Your task to perform on an android device: toggle airplane mode Image 0: 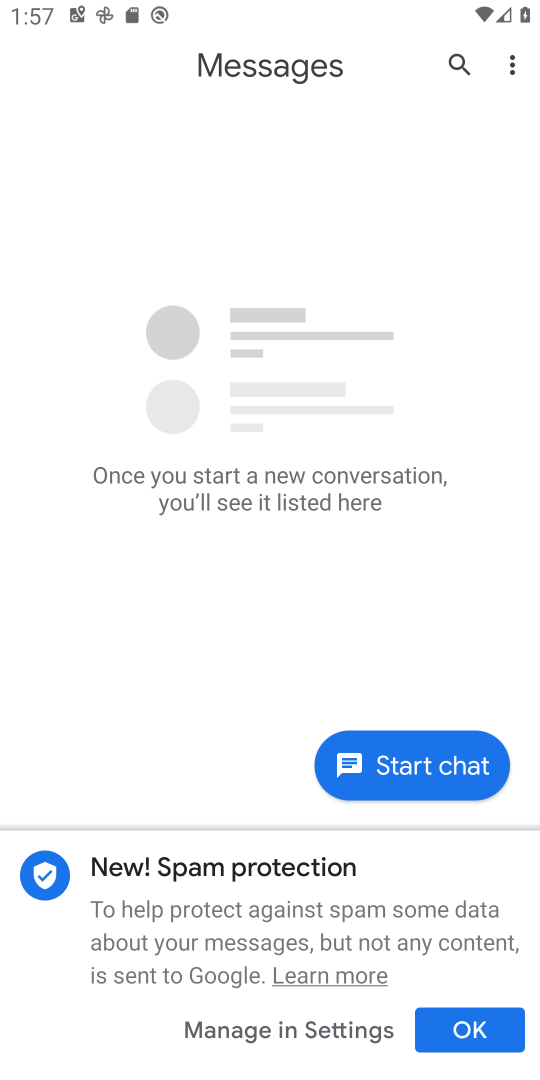
Step 0: press home button
Your task to perform on an android device: toggle airplane mode Image 1: 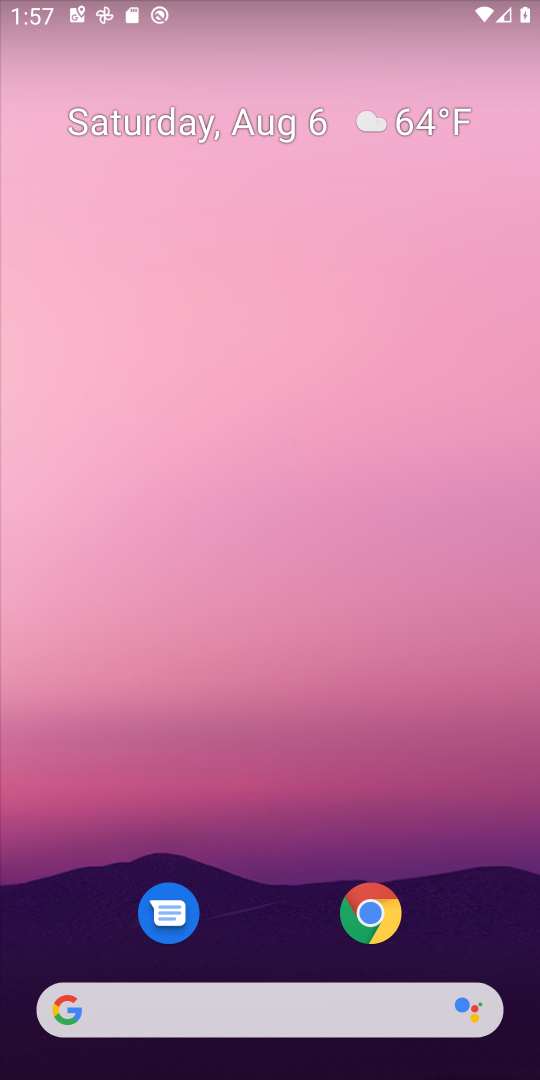
Step 1: drag from (272, 884) to (331, 349)
Your task to perform on an android device: toggle airplane mode Image 2: 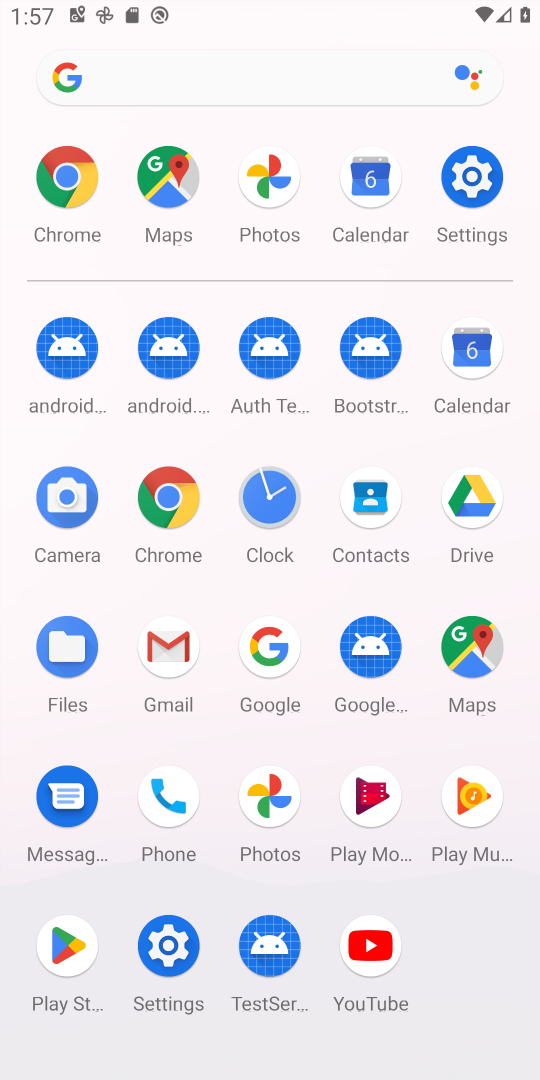
Step 2: click (475, 177)
Your task to perform on an android device: toggle airplane mode Image 3: 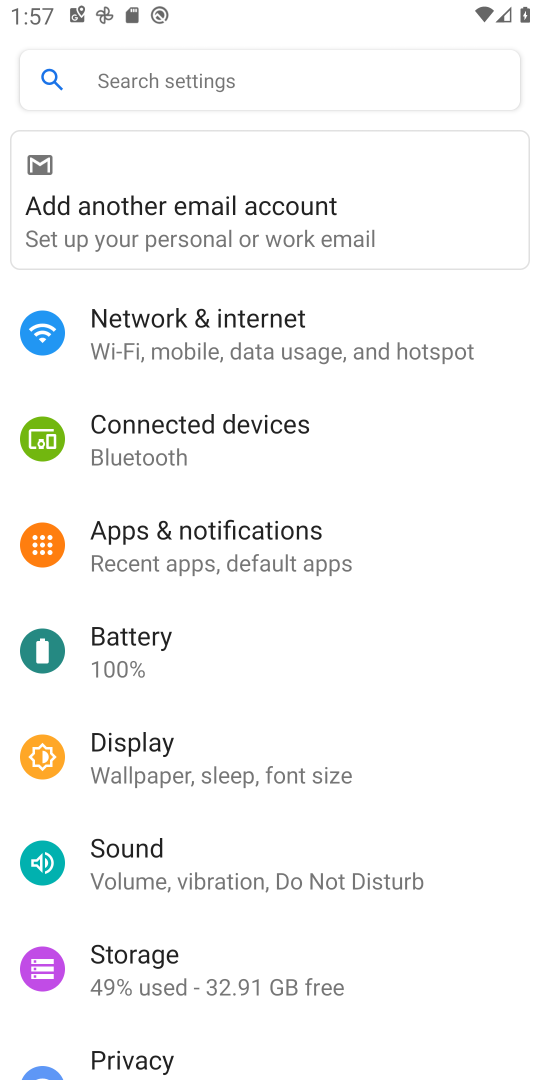
Step 3: drag from (429, 794) to (458, 635)
Your task to perform on an android device: toggle airplane mode Image 4: 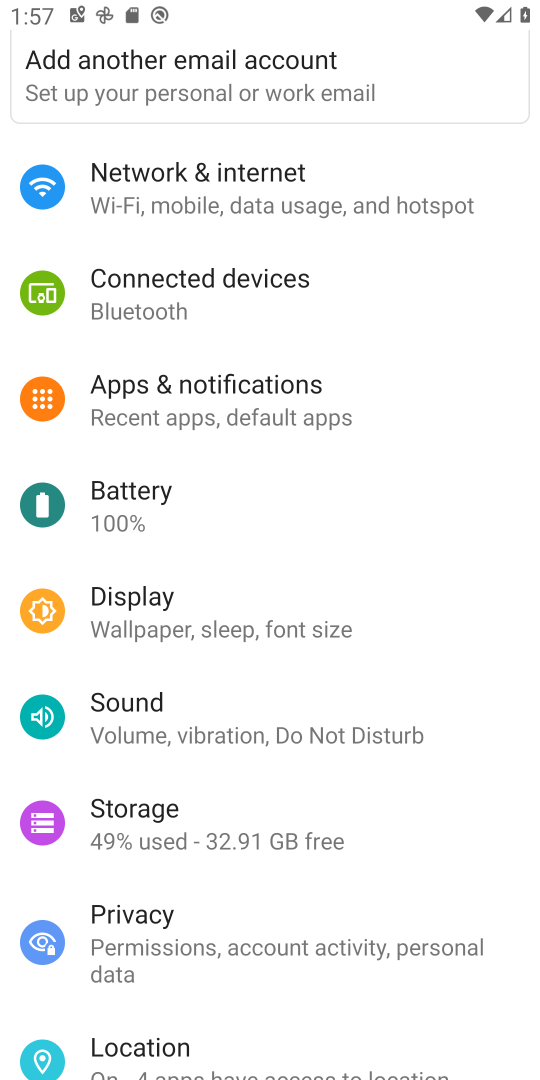
Step 4: drag from (459, 823) to (479, 608)
Your task to perform on an android device: toggle airplane mode Image 5: 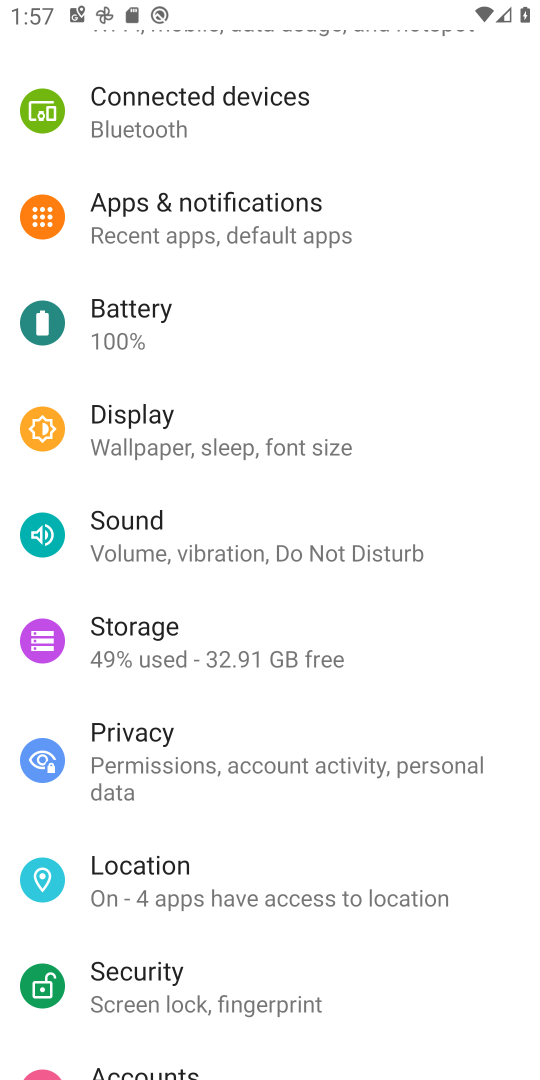
Step 5: drag from (479, 838) to (480, 658)
Your task to perform on an android device: toggle airplane mode Image 6: 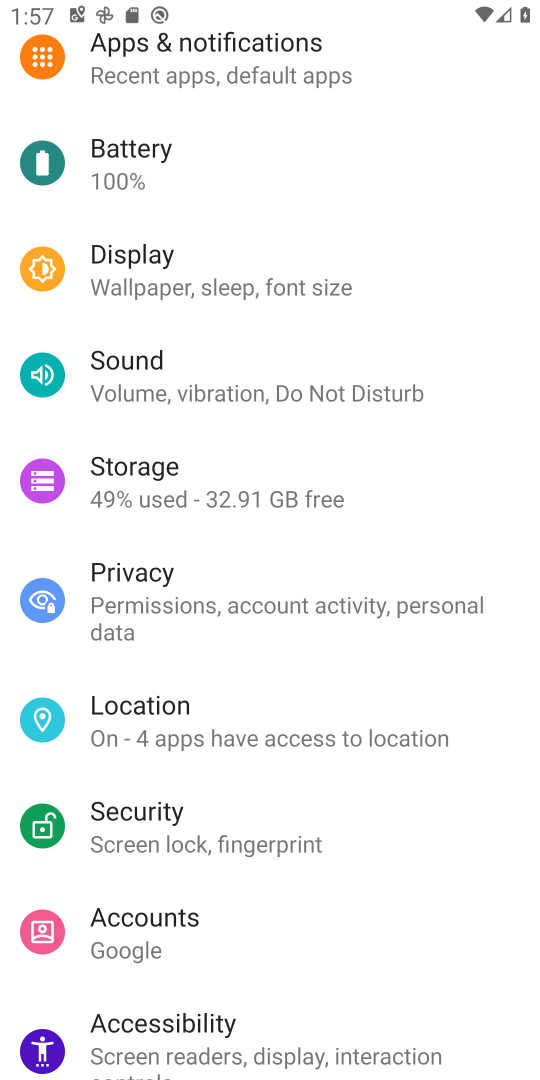
Step 6: drag from (482, 913) to (484, 645)
Your task to perform on an android device: toggle airplane mode Image 7: 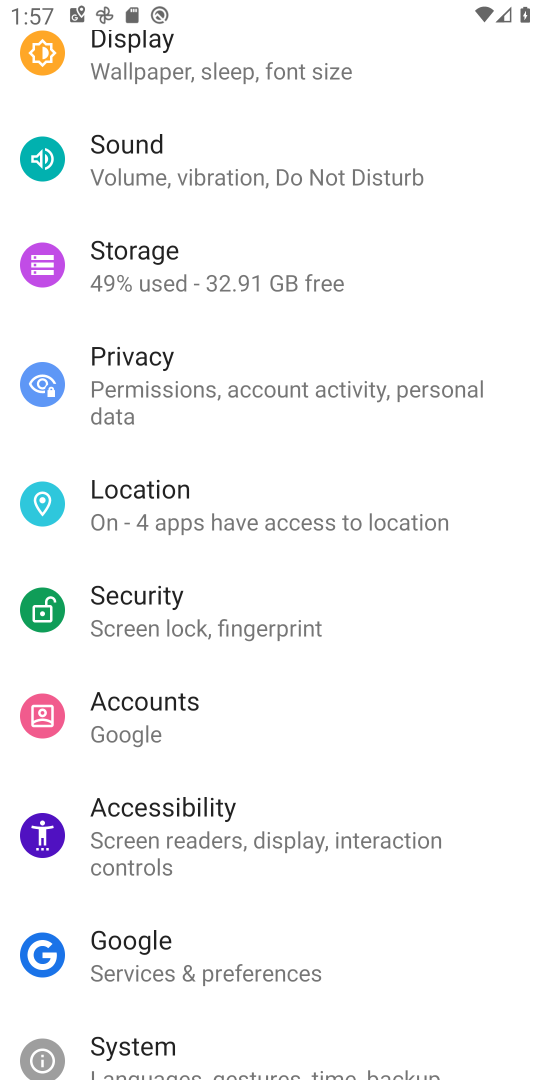
Step 7: drag from (476, 897) to (470, 668)
Your task to perform on an android device: toggle airplane mode Image 8: 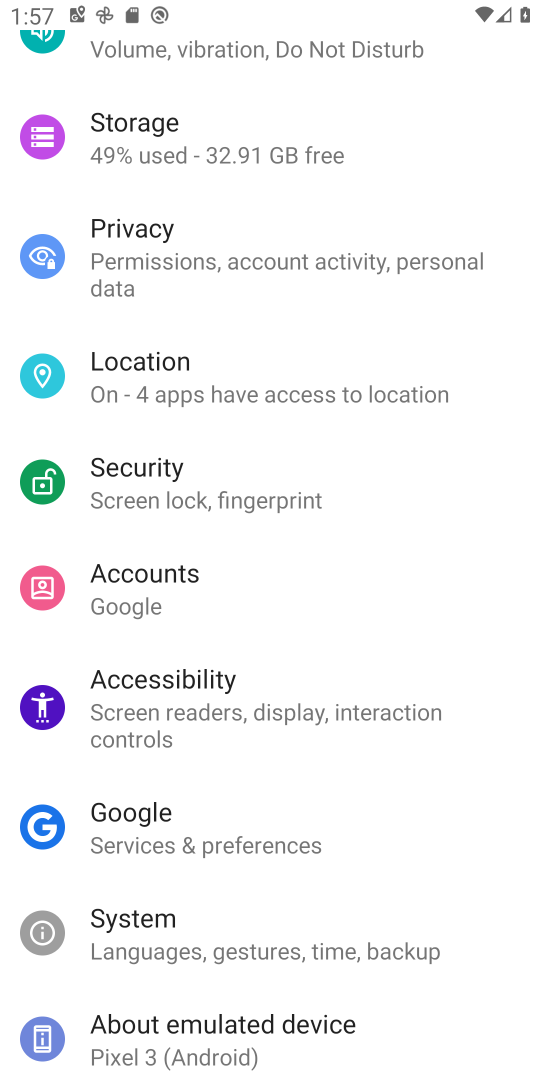
Step 8: drag from (458, 562) to (467, 846)
Your task to perform on an android device: toggle airplane mode Image 9: 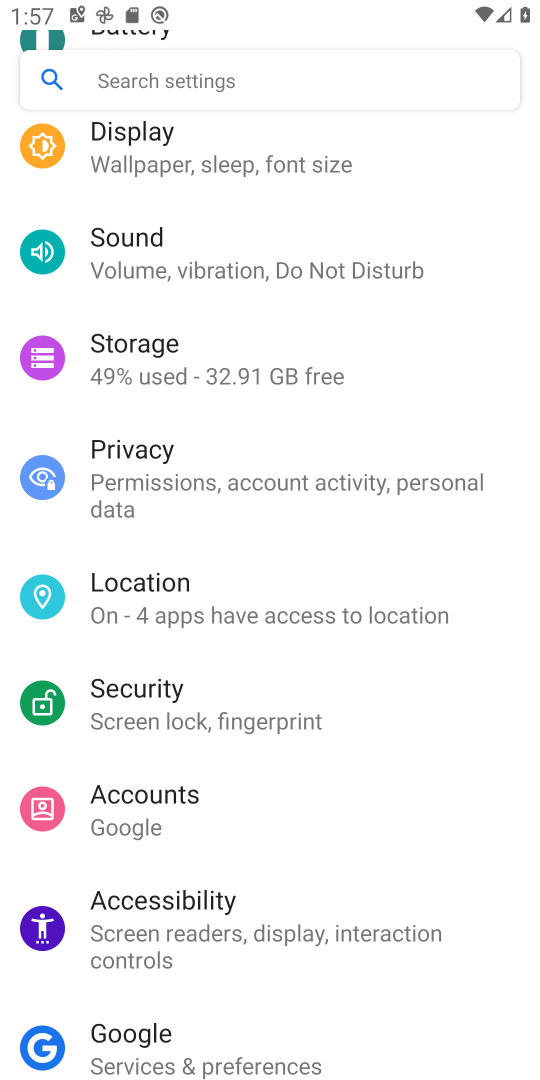
Step 9: drag from (466, 386) to (463, 639)
Your task to perform on an android device: toggle airplane mode Image 10: 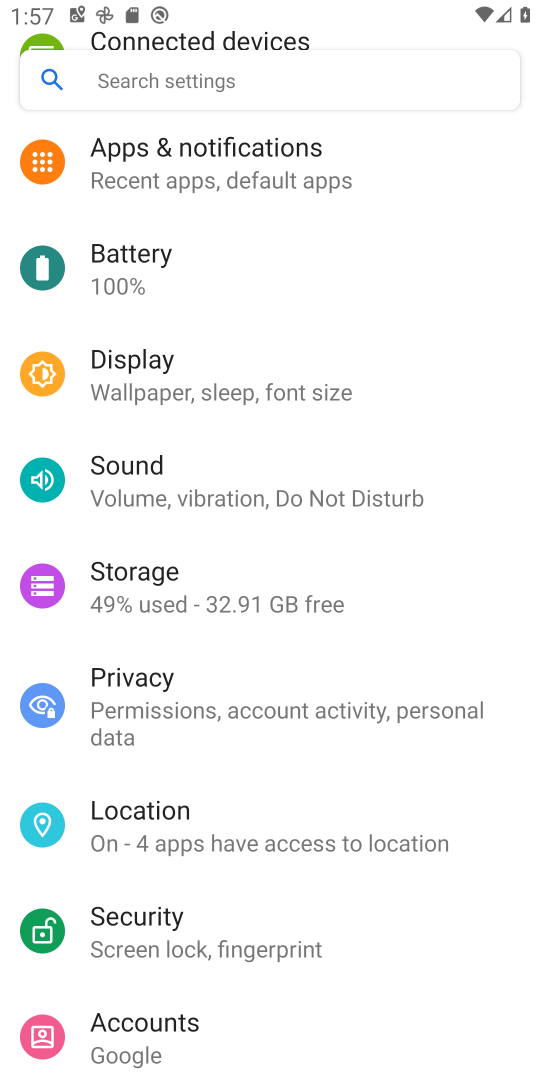
Step 10: drag from (466, 324) to (466, 589)
Your task to perform on an android device: toggle airplane mode Image 11: 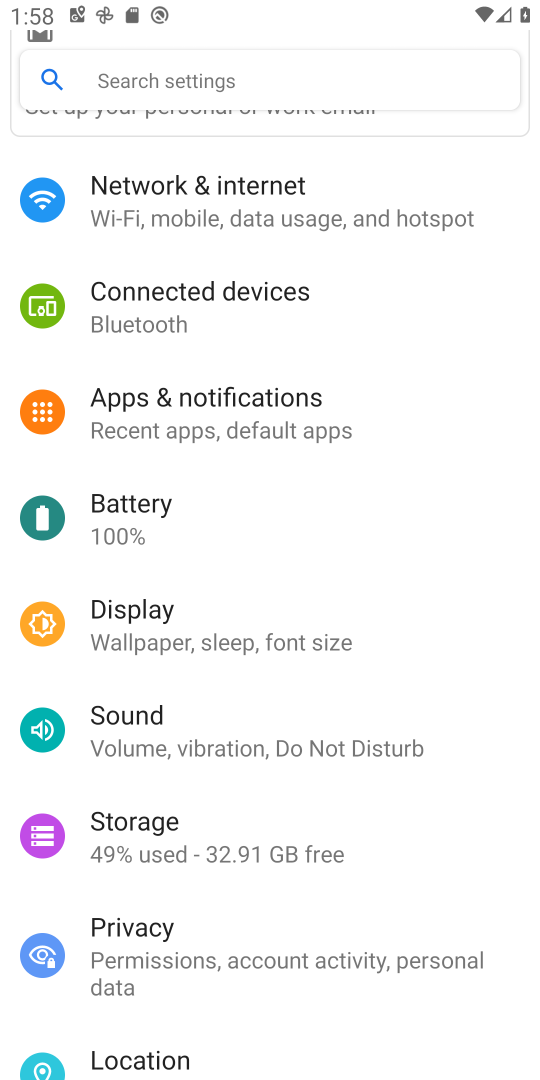
Step 11: drag from (489, 279) to (482, 578)
Your task to perform on an android device: toggle airplane mode Image 12: 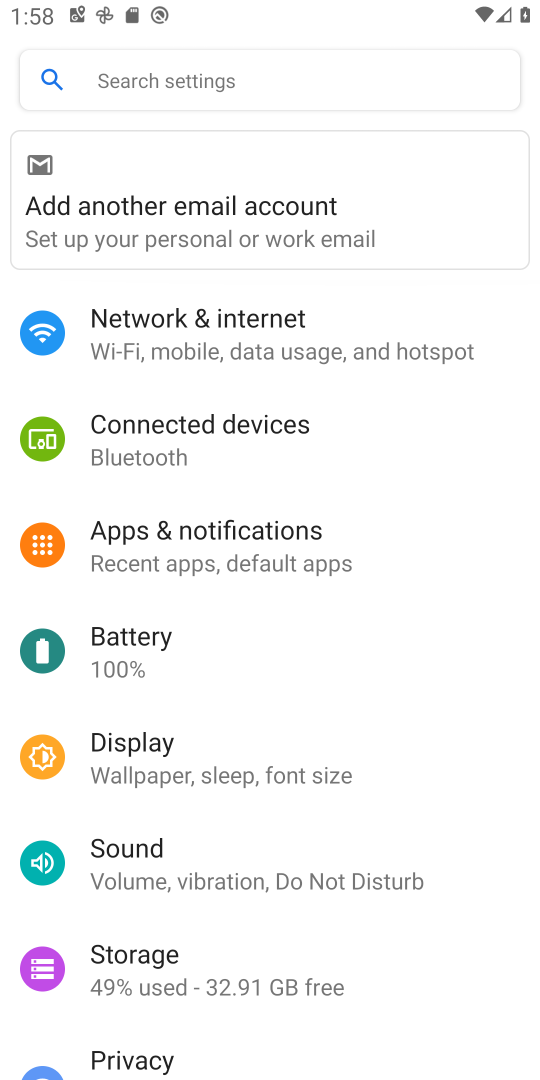
Step 12: click (438, 352)
Your task to perform on an android device: toggle airplane mode Image 13: 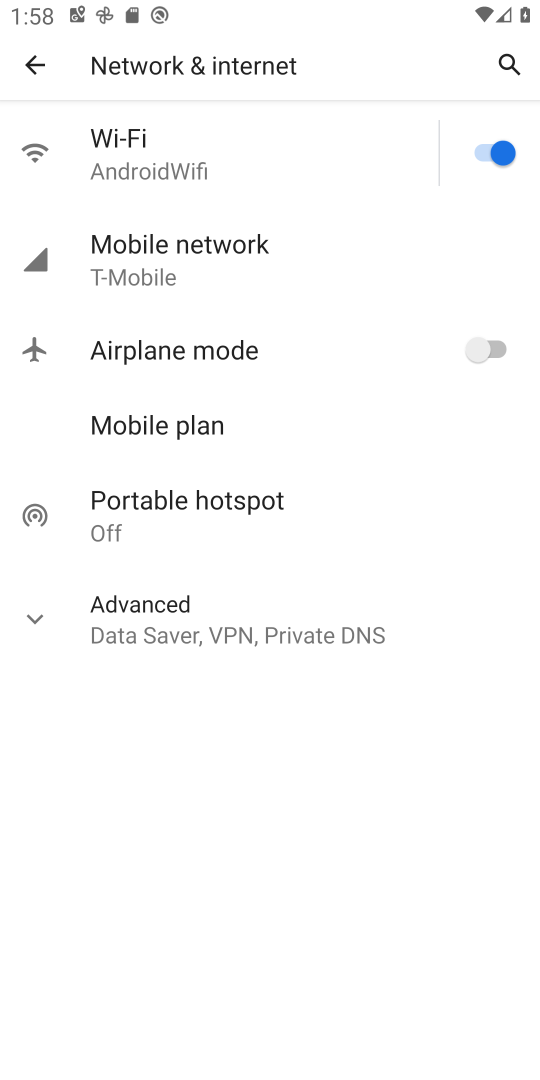
Step 13: click (495, 362)
Your task to perform on an android device: toggle airplane mode Image 14: 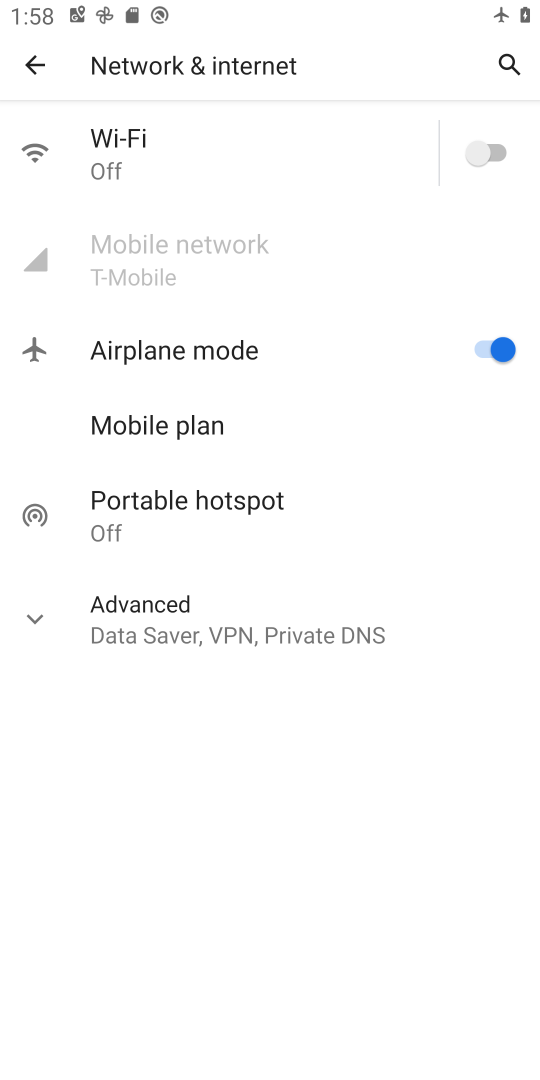
Step 14: task complete